Your task to perform on an android device: Show me popular games on the Play Store Image 0: 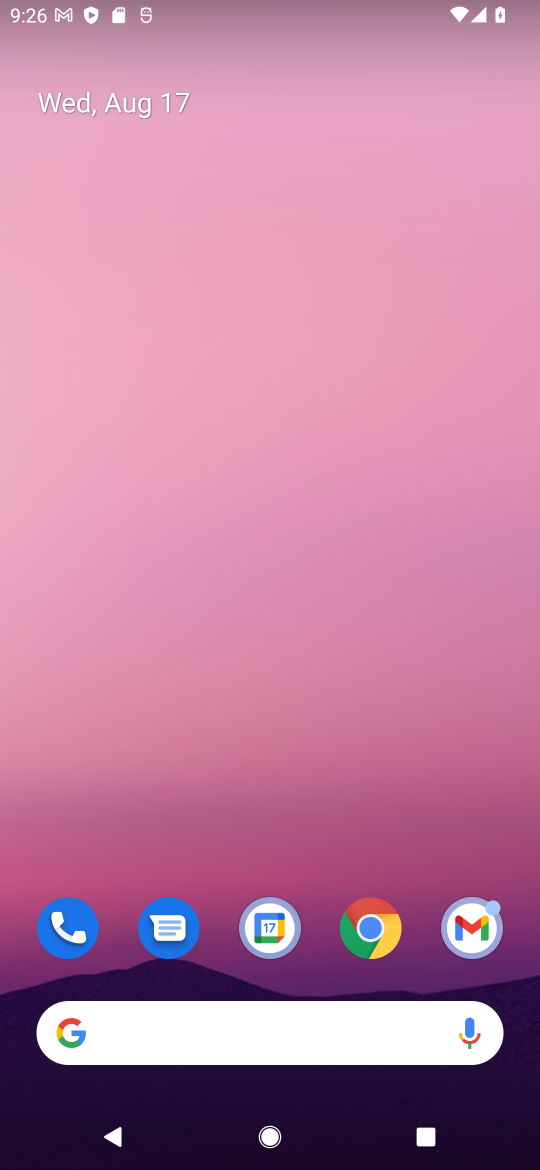
Step 0: drag from (372, 867) to (296, 10)
Your task to perform on an android device: Show me popular games on the Play Store Image 1: 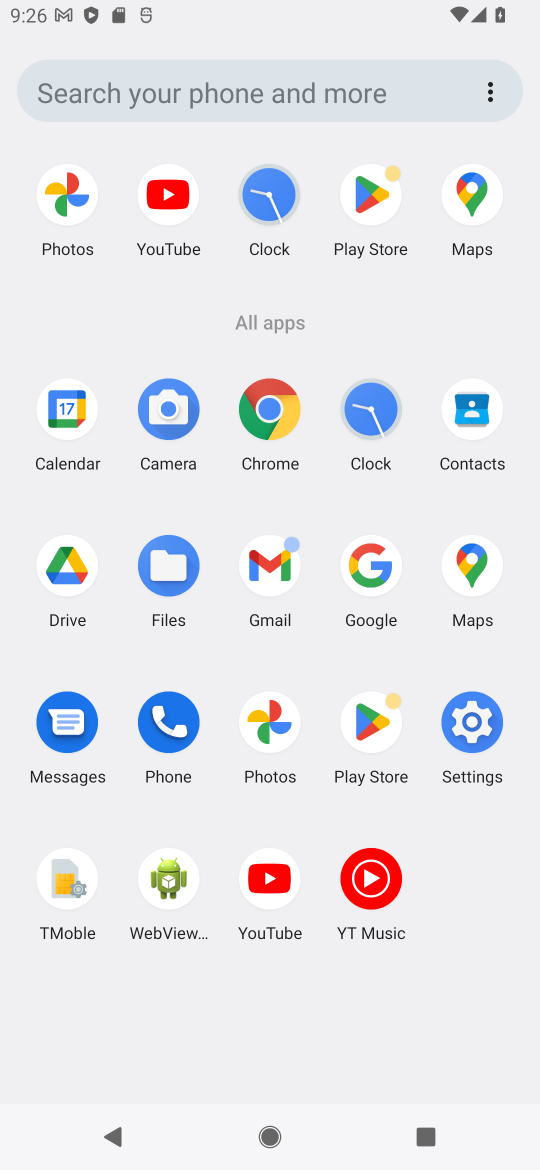
Step 1: click (358, 185)
Your task to perform on an android device: Show me popular games on the Play Store Image 2: 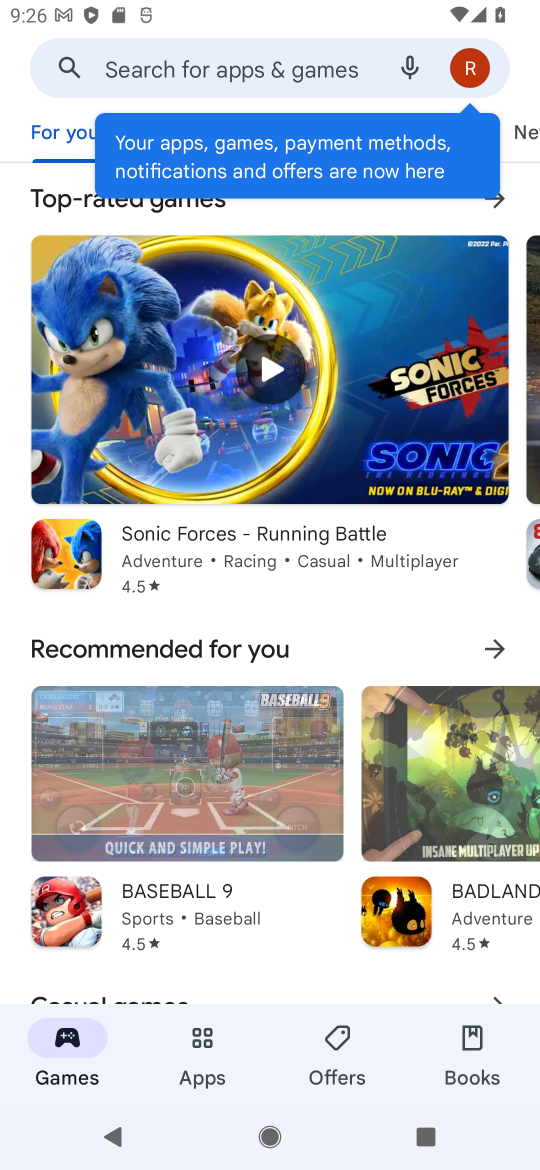
Step 2: drag from (287, 213) to (157, 198)
Your task to perform on an android device: Show me popular games on the Play Store Image 3: 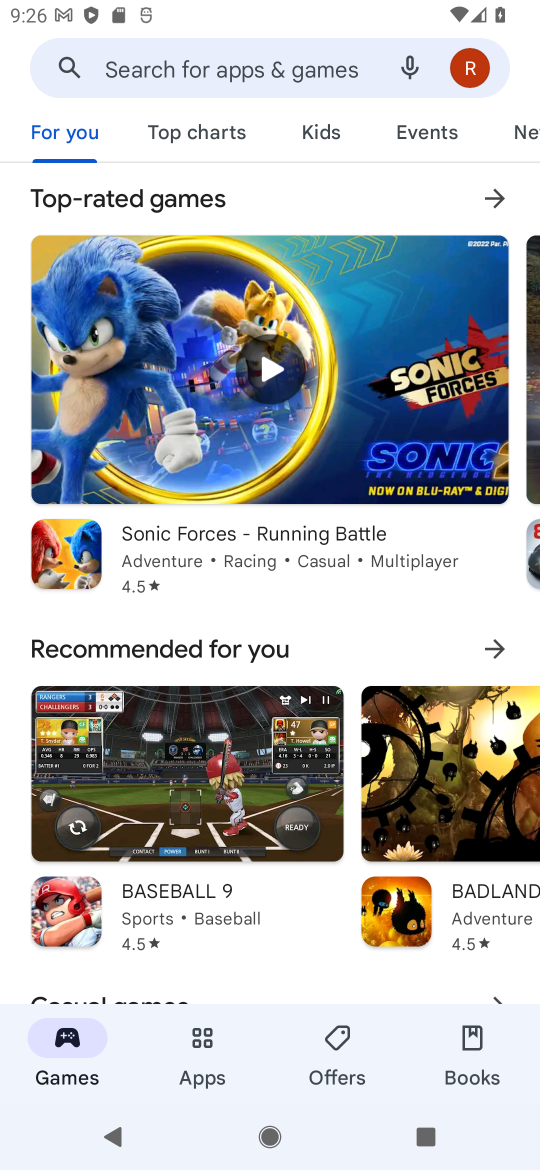
Step 3: click (236, 123)
Your task to perform on an android device: Show me popular games on the Play Store Image 4: 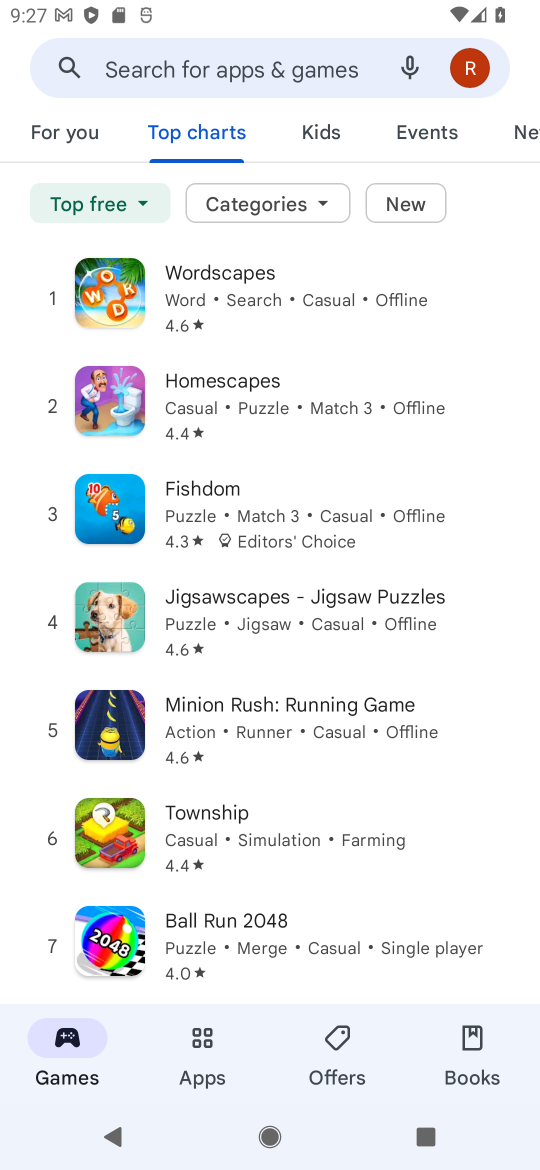
Step 4: task complete